Your task to perform on an android device: Go to network settings Image 0: 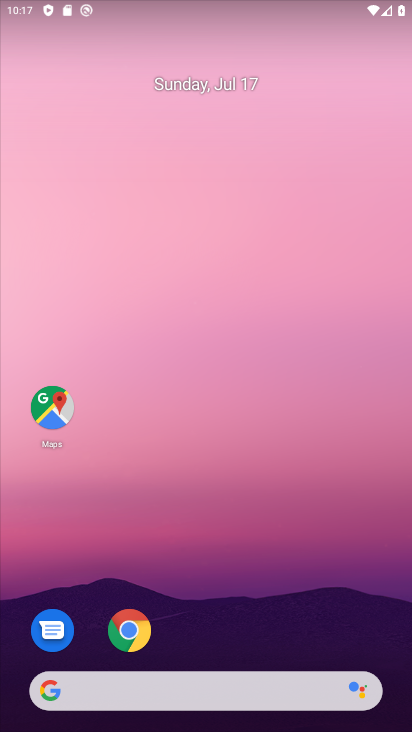
Step 0: drag from (386, 650) to (372, 132)
Your task to perform on an android device: Go to network settings Image 1: 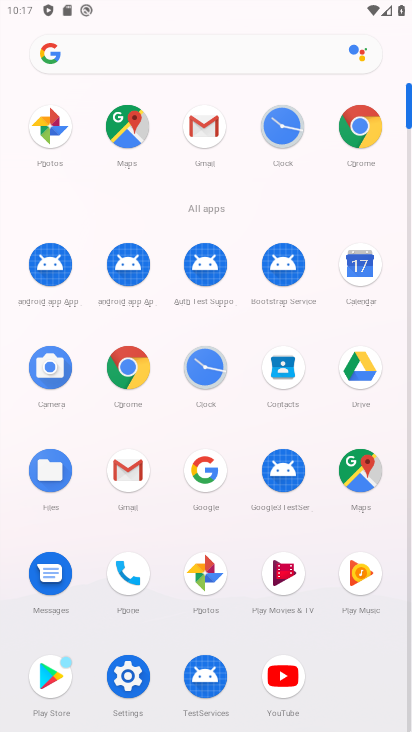
Step 1: click (129, 672)
Your task to perform on an android device: Go to network settings Image 2: 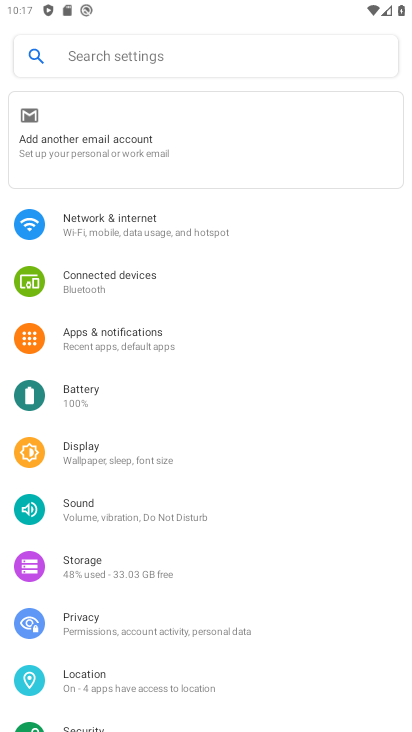
Step 2: click (79, 220)
Your task to perform on an android device: Go to network settings Image 3: 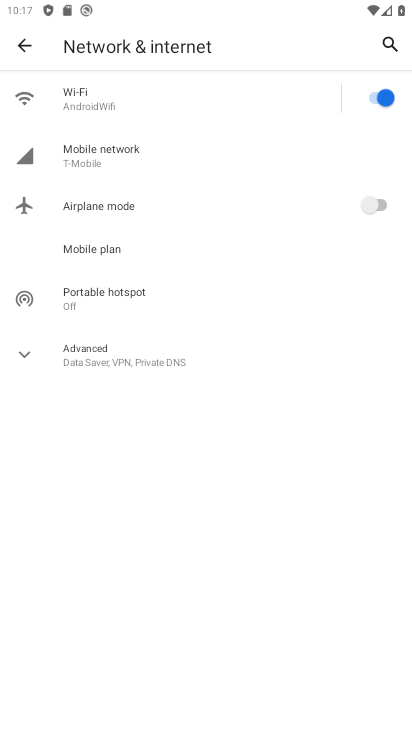
Step 3: click (28, 354)
Your task to perform on an android device: Go to network settings Image 4: 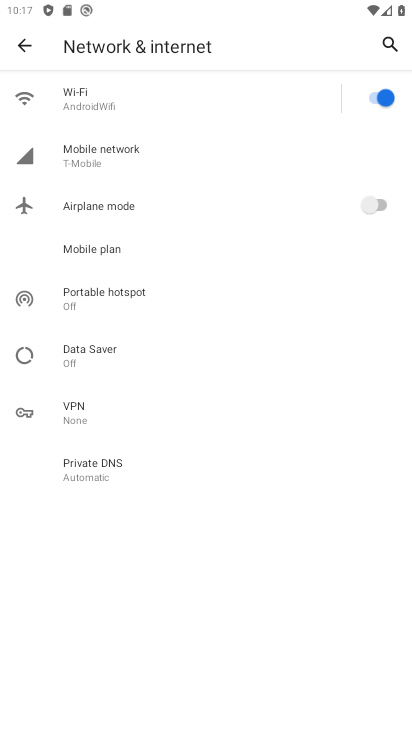
Step 4: click (99, 158)
Your task to perform on an android device: Go to network settings Image 5: 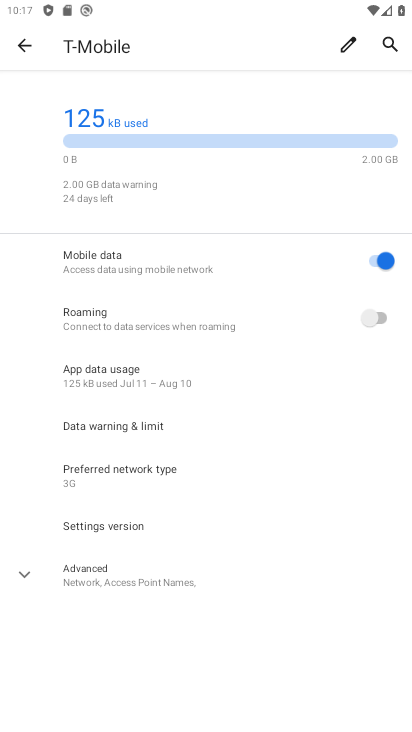
Step 5: click (25, 574)
Your task to perform on an android device: Go to network settings Image 6: 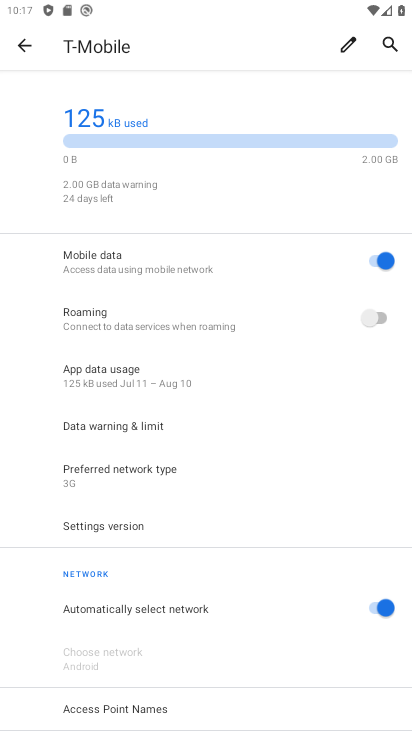
Step 6: task complete